Your task to perform on an android device: show emergency info Image 0: 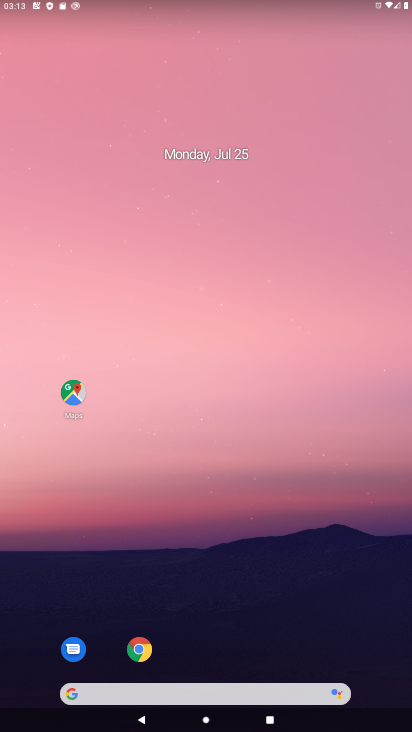
Step 0: drag from (369, 629) to (324, 115)
Your task to perform on an android device: show emergency info Image 1: 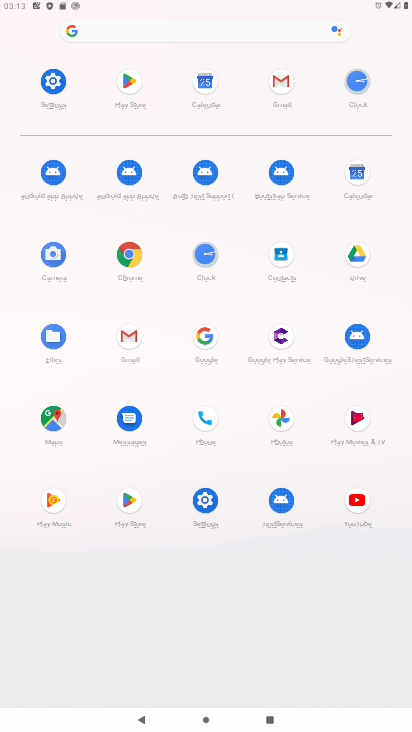
Step 1: click (204, 502)
Your task to perform on an android device: show emergency info Image 2: 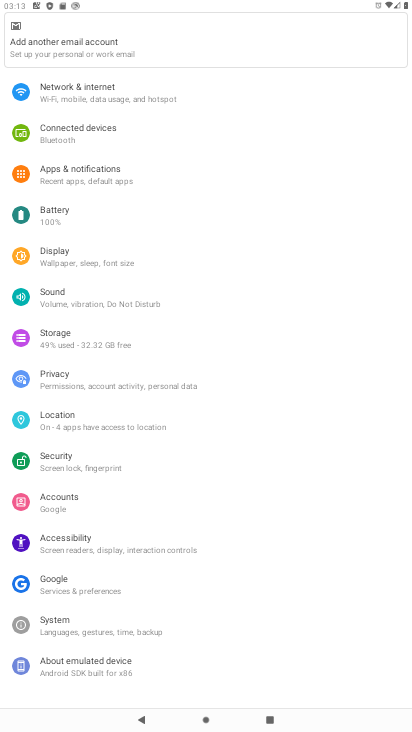
Step 2: click (70, 664)
Your task to perform on an android device: show emergency info Image 3: 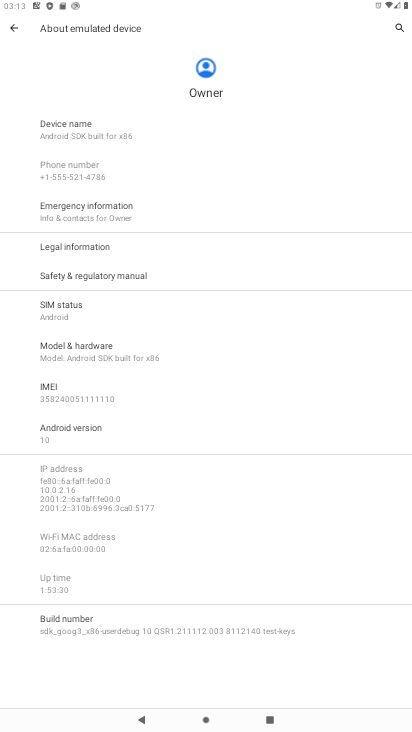
Step 3: click (112, 208)
Your task to perform on an android device: show emergency info Image 4: 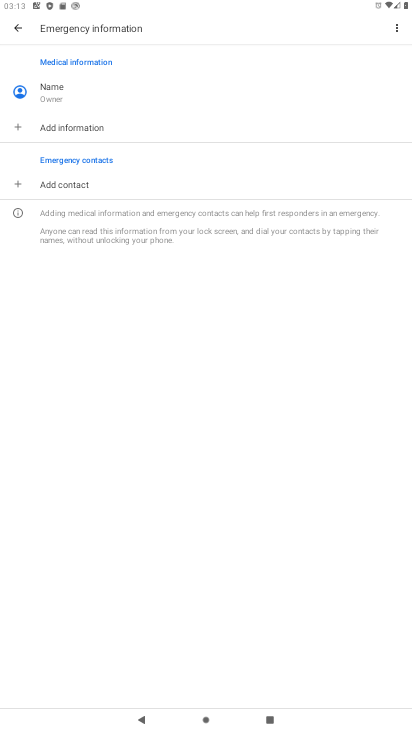
Step 4: task complete